Your task to perform on an android device: Search for Mexican restaurants on Maps Image 0: 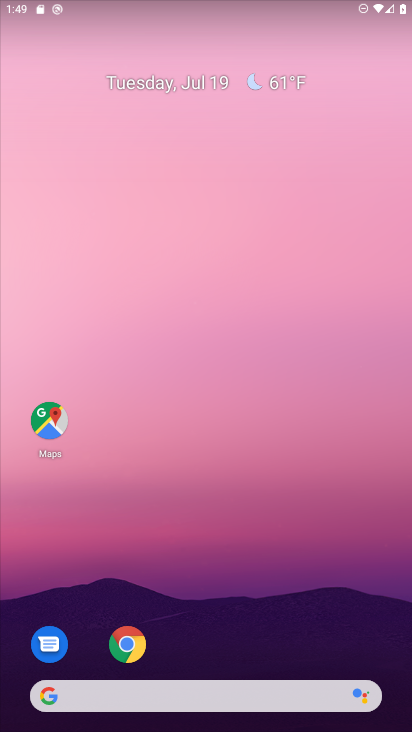
Step 0: drag from (220, 643) to (206, 168)
Your task to perform on an android device: Search for Mexican restaurants on Maps Image 1: 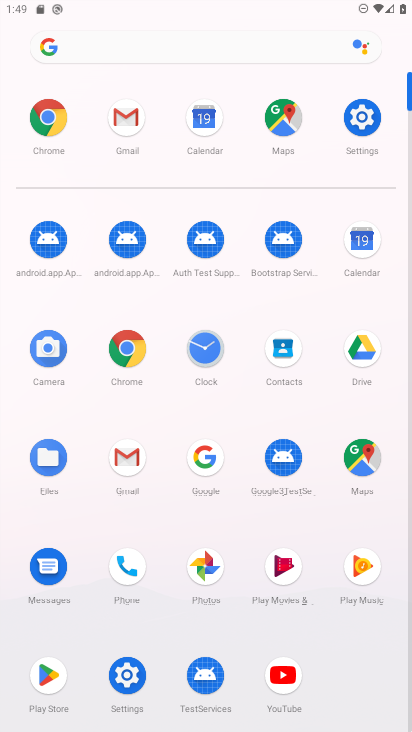
Step 1: click (373, 461)
Your task to perform on an android device: Search for Mexican restaurants on Maps Image 2: 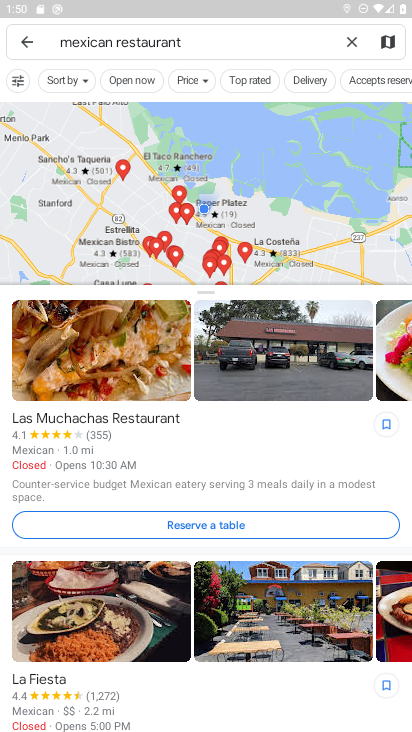
Step 2: task complete